Your task to perform on an android device: When is my next appointment? Image 0: 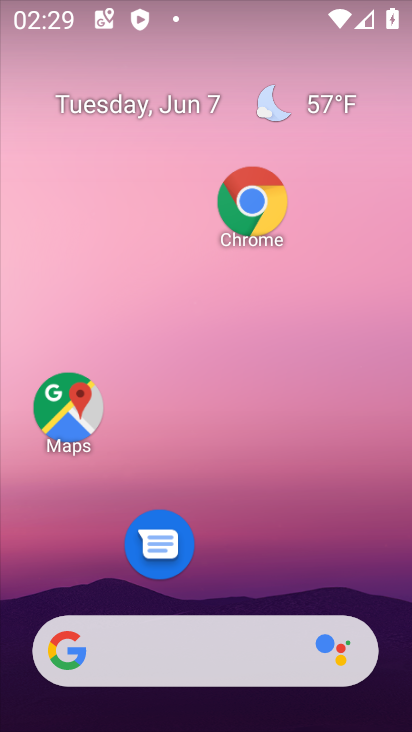
Step 0: drag from (257, 620) to (246, 427)
Your task to perform on an android device: When is my next appointment? Image 1: 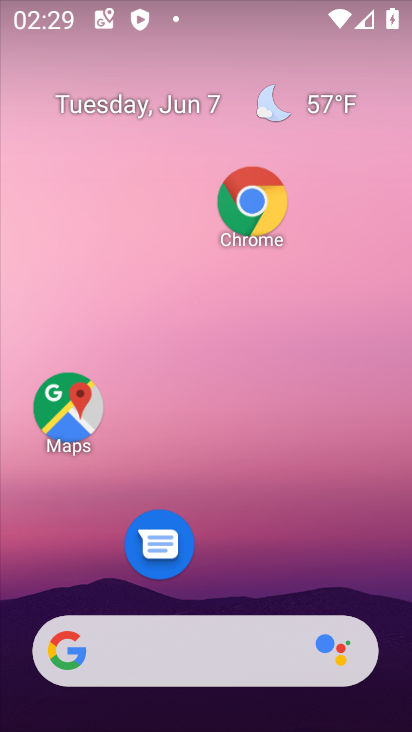
Step 1: drag from (270, 511) to (279, 192)
Your task to perform on an android device: When is my next appointment? Image 2: 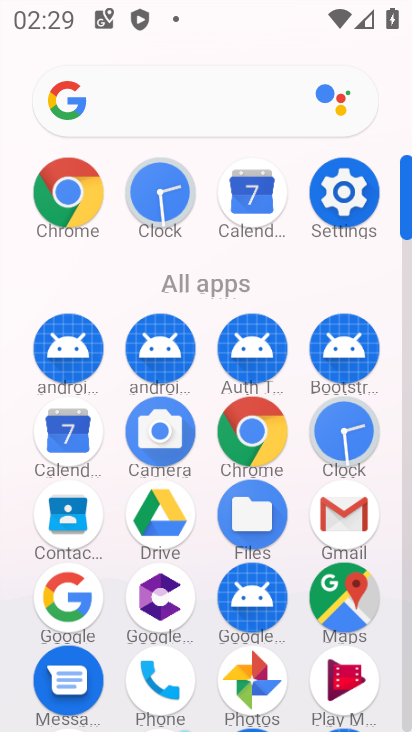
Step 2: click (62, 430)
Your task to perform on an android device: When is my next appointment? Image 3: 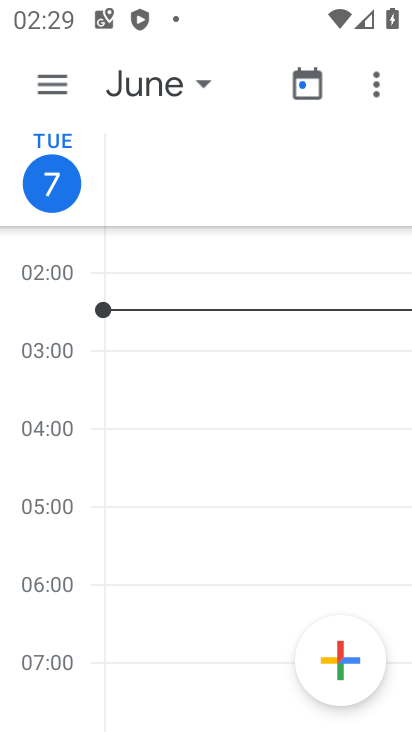
Step 3: drag from (94, 596) to (162, 220)
Your task to perform on an android device: When is my next appointment? Image 4: 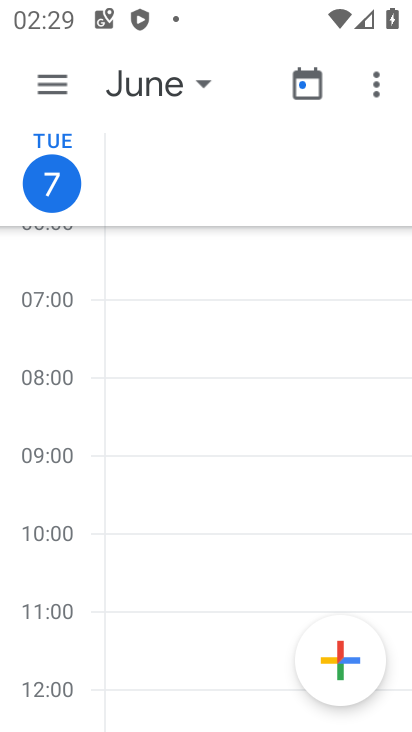
Step 4: drag from (96, 566) to (134, 230)
Your task to perform on an android device: When is my next appointment? Image 5: 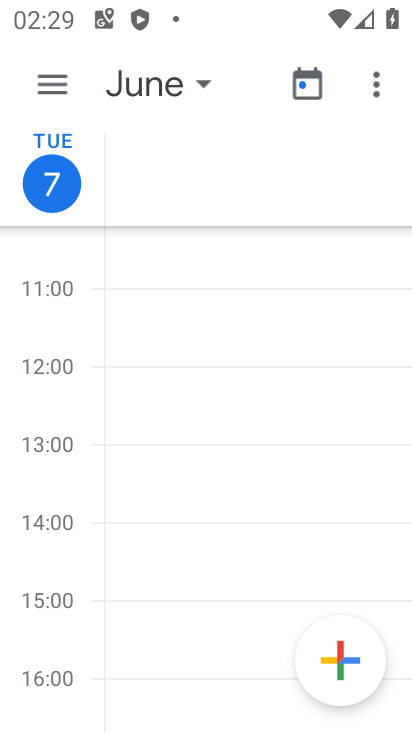
Step 5: click (49, 87)
Your task to perform on an android device: When is my next appointment? Image 6: 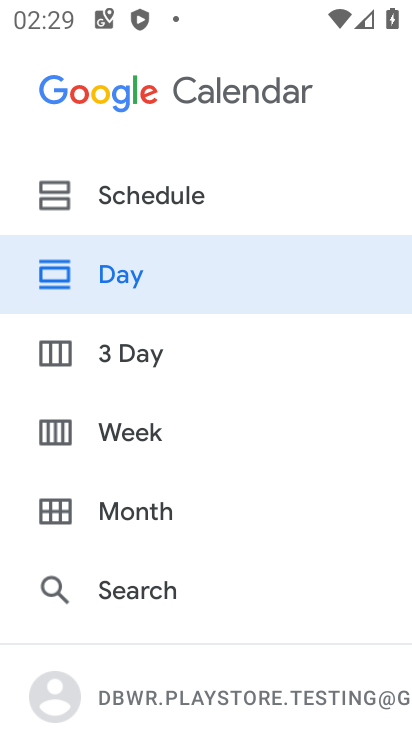
Step 6: click (151, 486)
Your task to perform on an android device: When is my next appointment? Image 7: 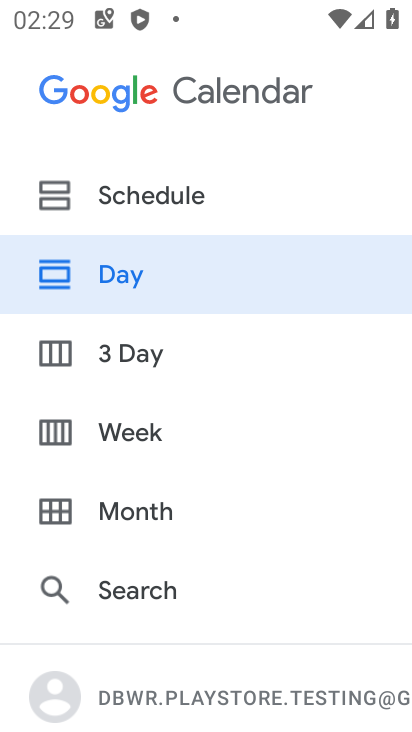
Step 7: click (148, 452)
Your task to perform on an android device: When is my next appointment? Image 8: 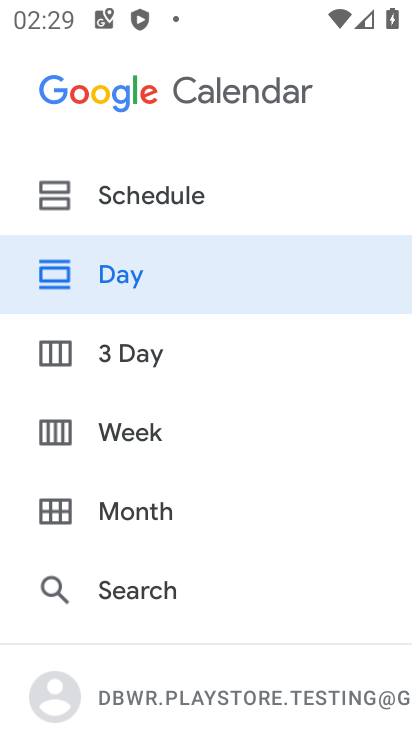
Step 8: click (143, 496)
Your task to perform on an android device: When is my next appointment? Image 9: 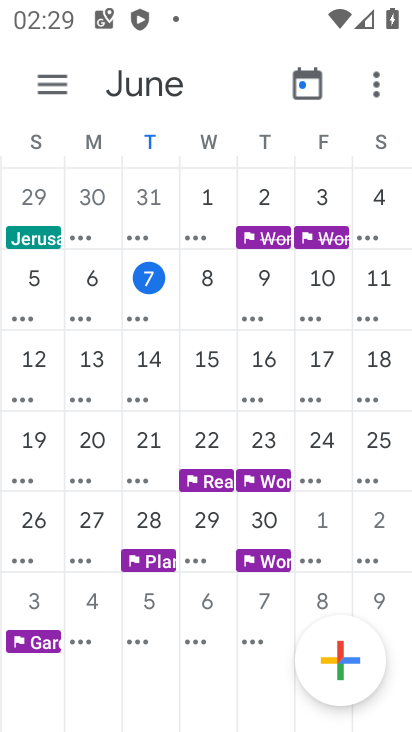
Step 9: click (156, 263)
Your task to perform on an android device: When is my next appointment? Image 10: 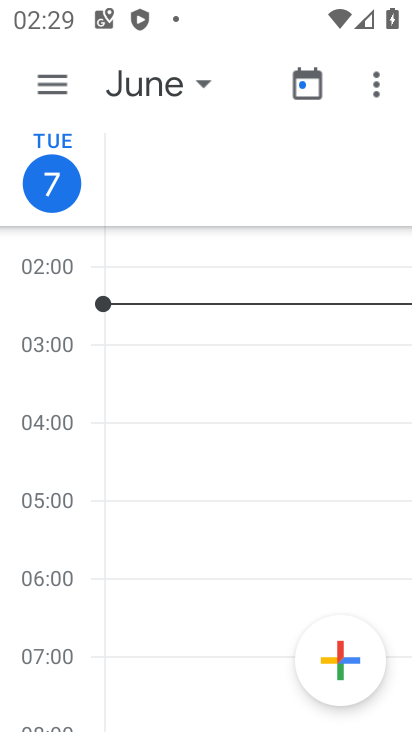
Step 10: click (60, 91)
Your task to perform on an android device: When is my next appointment? Image 11: 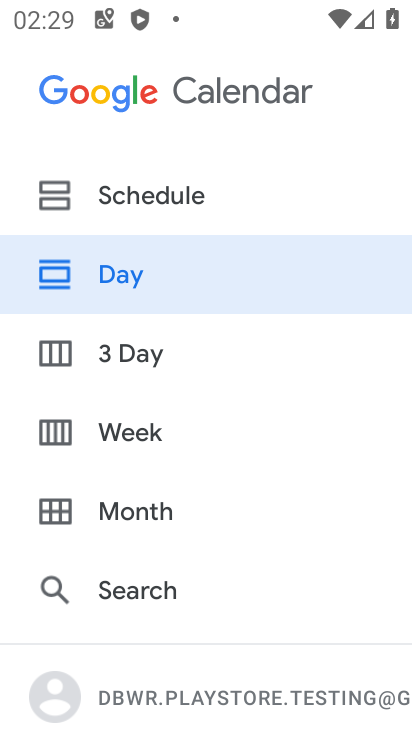
Step 11: click (160, 290)
Your task to perform on an android device: When is my next appointment? Image 12: 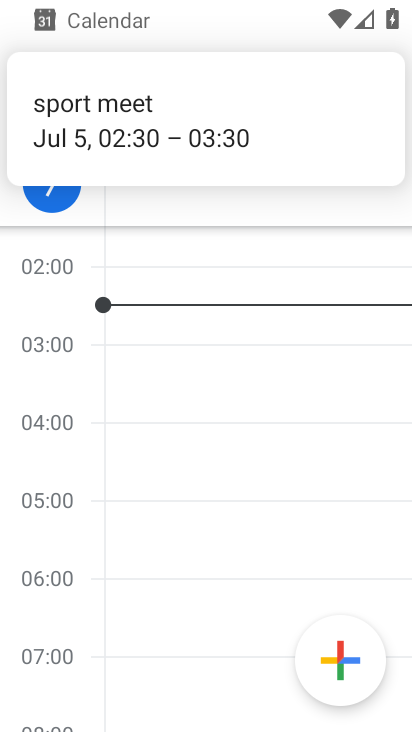
Step 12: task complete